Your task to perform on an android device: When is my next appointment? Image 0: 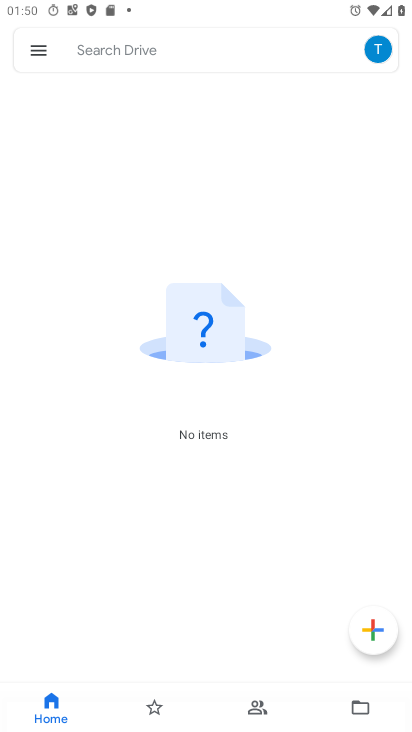
Step 0: press home button
Your task to perform on an android device: When is my next appointment? Image 1: 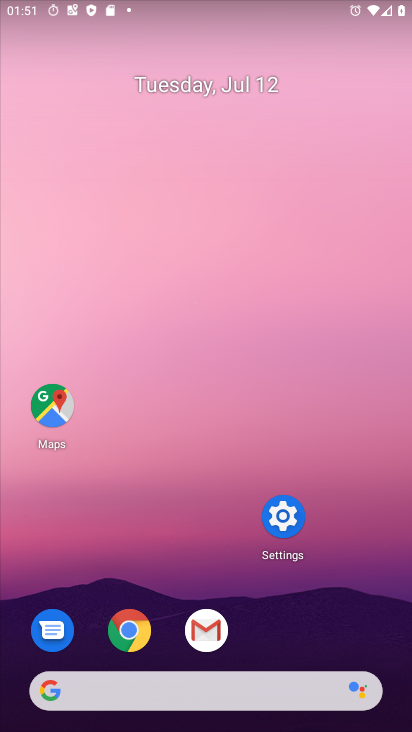
Step 1: drag from (276, 711) to (241, 104)
Your task to perform on an android device: When is my next appointment? Image 2: 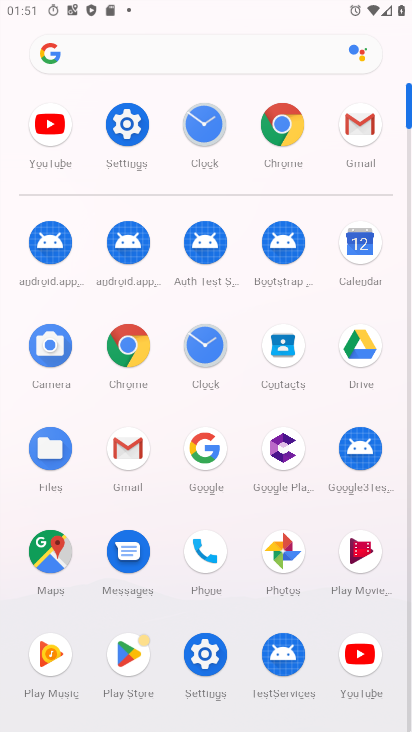
Step 2: click (352, 235)
Your task to perform on an android device: When is my next appointment? Image 3: 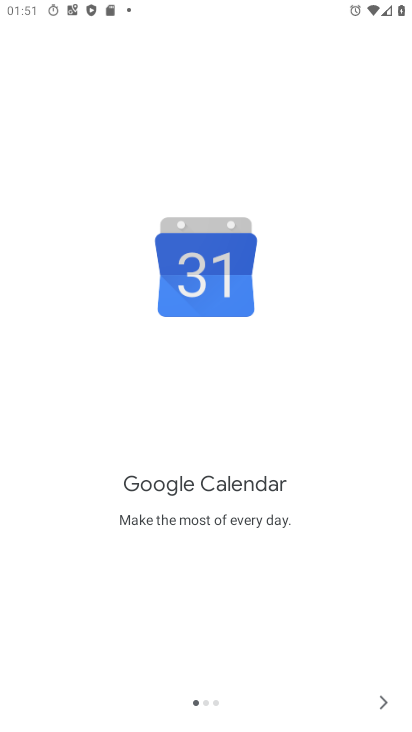
Step 3: click (367, 707)
Your task to perform on an android device: When is my next appointment? Image 4: 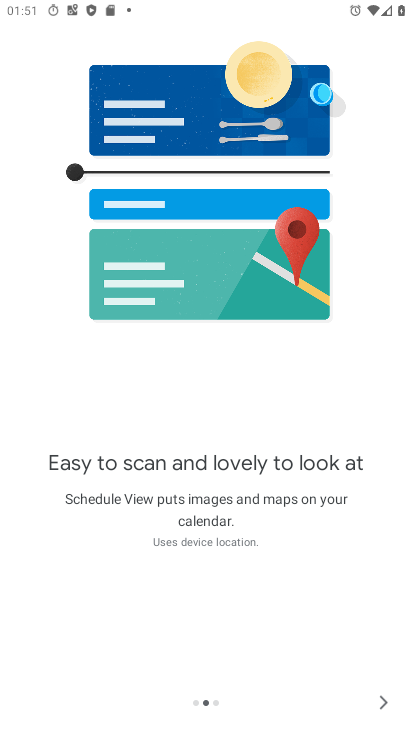
Step 4: click (378, 702)
Your task to perform on an android device: When is my next appointment? Image 5: 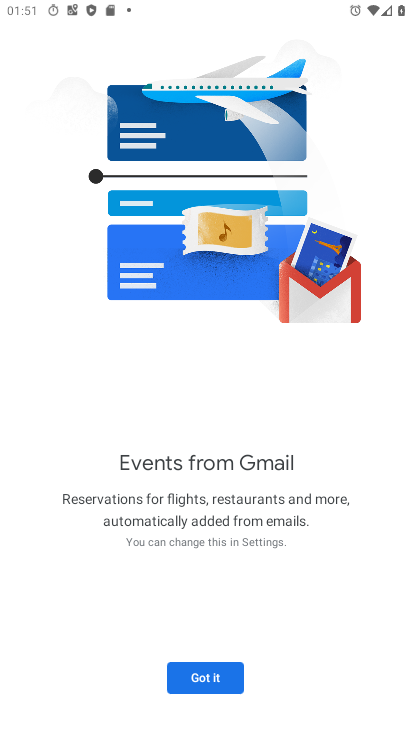
Step 5: click (228, 685)
Your task to perform on an android device: When is my next appointment? Image 6: 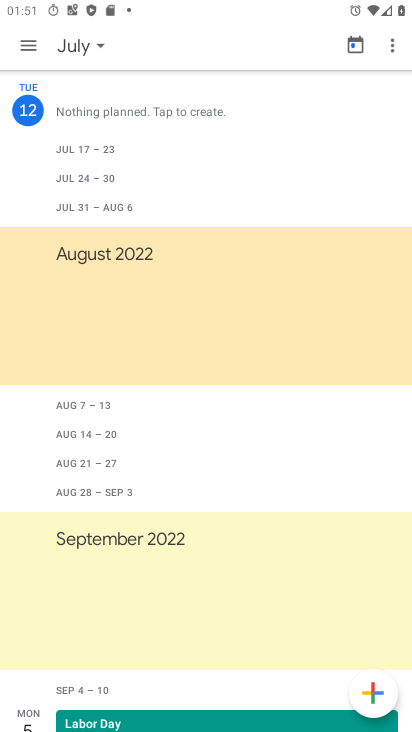
Step 6: click (21, 50)
Your task to perform on an android device: When is my next appointment? Image 7: 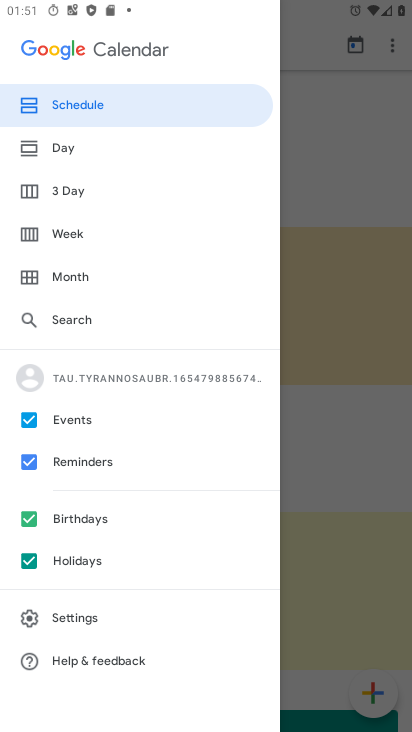
Step 7: click (64, 102)
Your task to perform on an android device: When is my next appointment? Image 8: 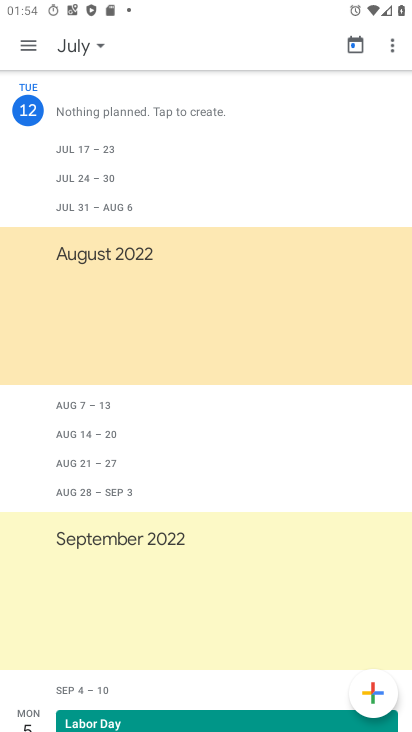
Step 8: task complete